Your task to perform on an android device: turn off data saver in the chrome app Image 0: 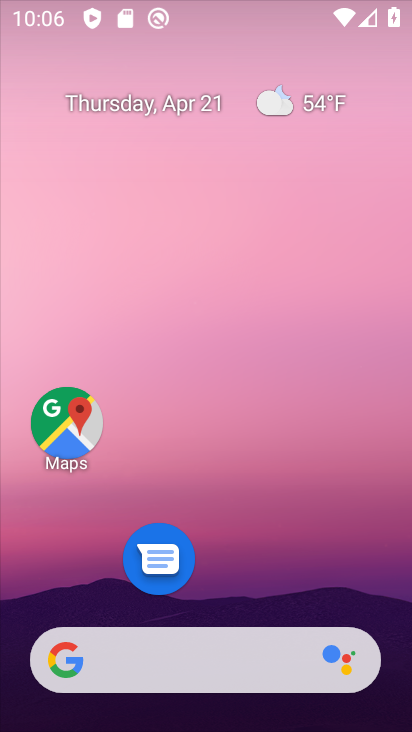
Step 0: drag from (266, 553) to (322, 101)
Your task to perform on an android device: turn off data saver in the chrome app Image 1: 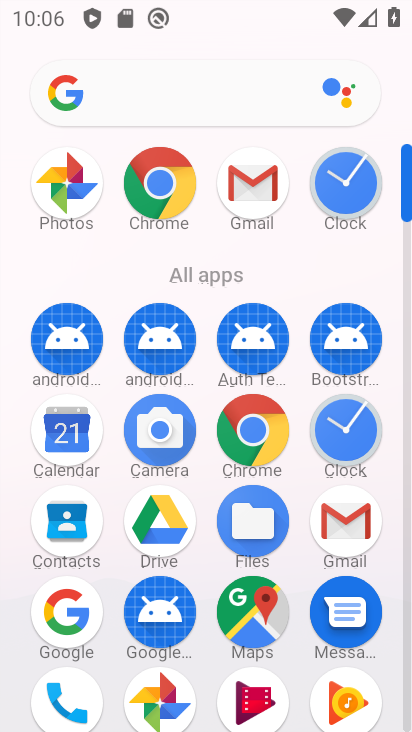
Step 1: click (168, 203)
Your task to perform on an android device: turn off data saver in the chrome app Image 2: 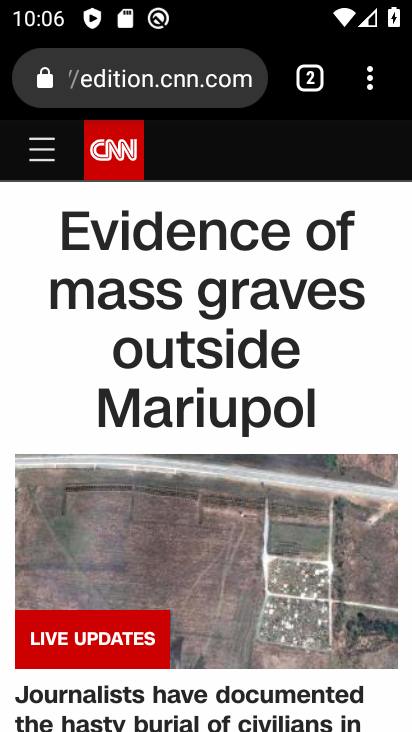
Step 2: click (374, 75)
Your task to perform on an android device: turn off data saver in the chrome app Image 3: 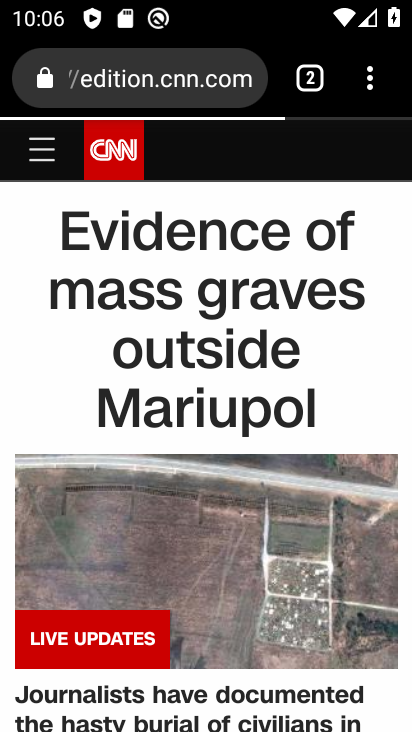
Step 3: drag from (373, 81) to (147, 616)
Your task to perform on an android device: turn off data saver in the chrome app Image 4: 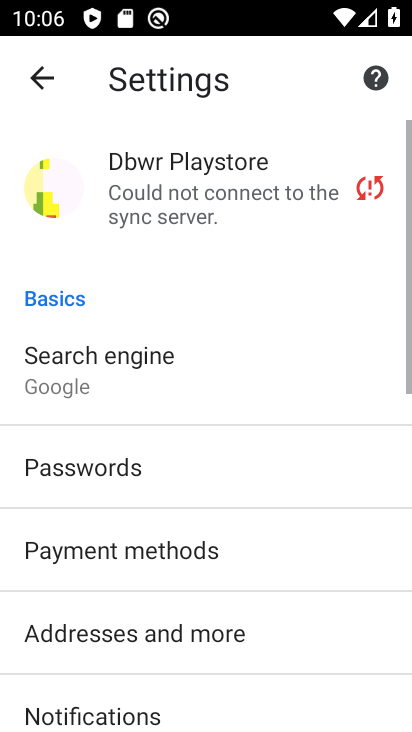
Step 4: drag from (182, 622) to (258, 132)
Your task to perform on an android device: turn off data saver in the chrome app Image 5: 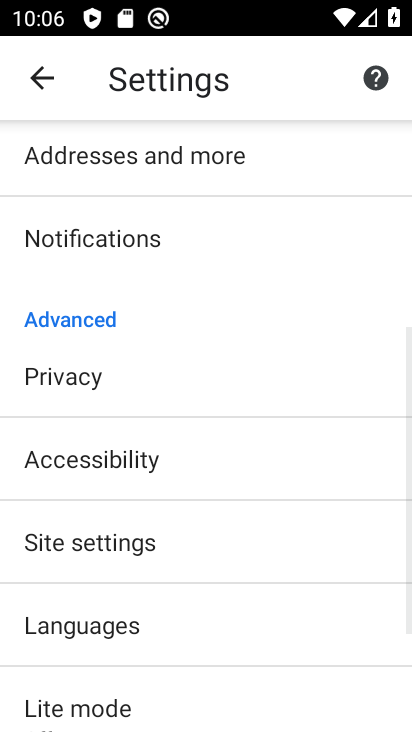
Step 5: drag from (200, 651) to (265, 176)
Your task to perform on an android device: turn off data saver in the chrome app Image 6: 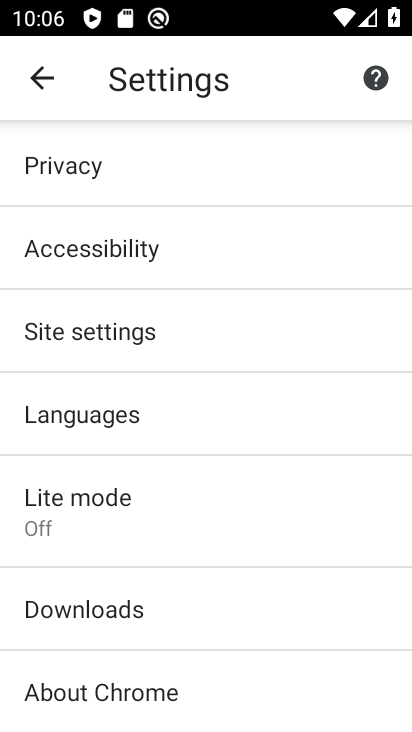
Step 6: click (119, 503)
Your task to perform on an android device: turn off data saver in the chrome app Image 7: 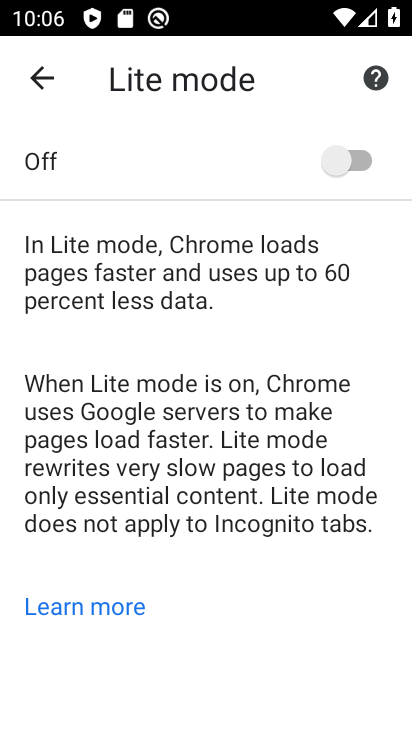
Step 7: task complete